Your task to perform on an android device: open chrome privacy settings Image 0: 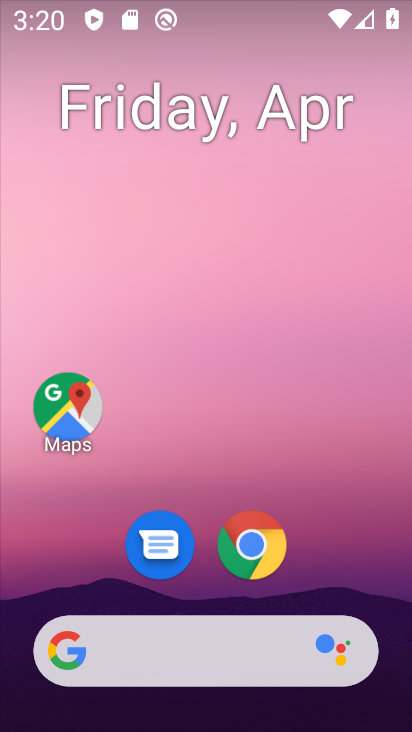
Step 0: click (251, 544)
Your task to perform on an android device: open chrome privacy settings Image 1: 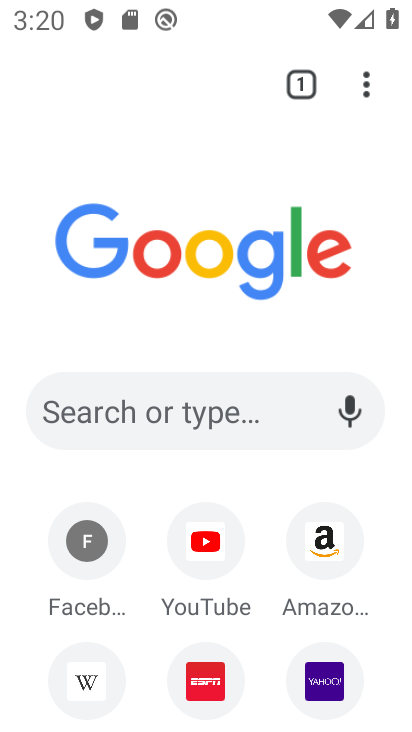
Step 1: click (365, 87)
Your task to perform on an android device: open chrome privacy settings Image 2: 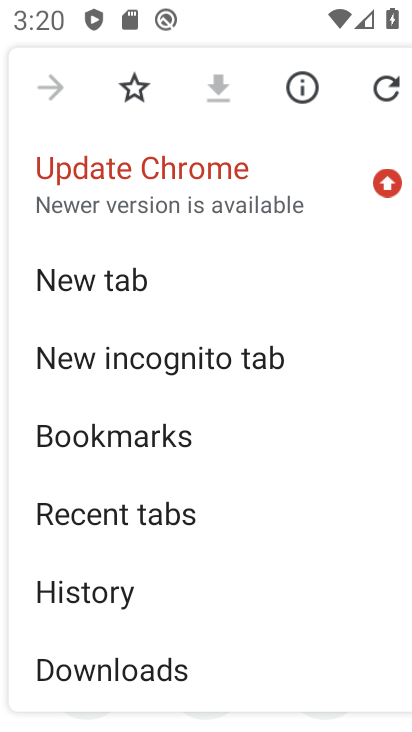
Step 2: drag from (251, 623) to (306, 212)
Your task to perform on an android device: open chrome privacy settings Image 3: 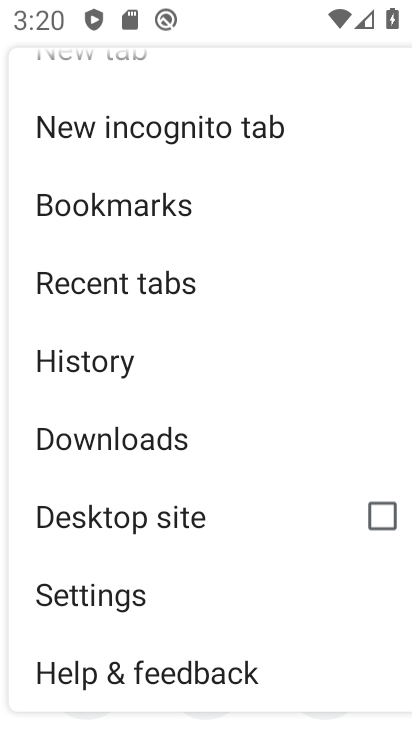
Step 3: click (62, 595)
Your task to perform on an android device: open chrome privacy settings Image 4: 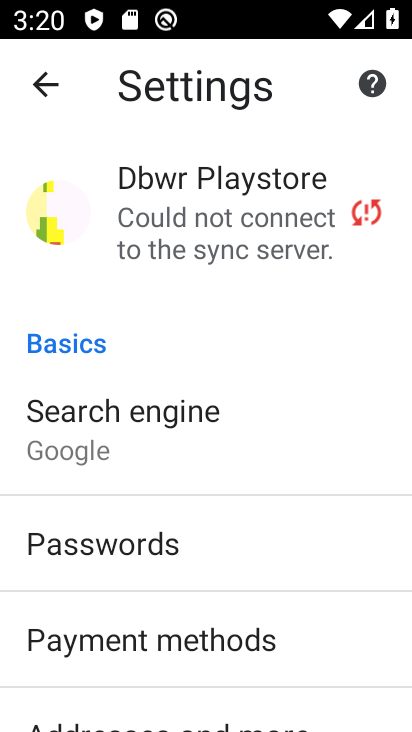
Step 4: drag from (318, 649) to (329, 287)
Your task to perform on an android device: open chrome privacy settings Image 5: 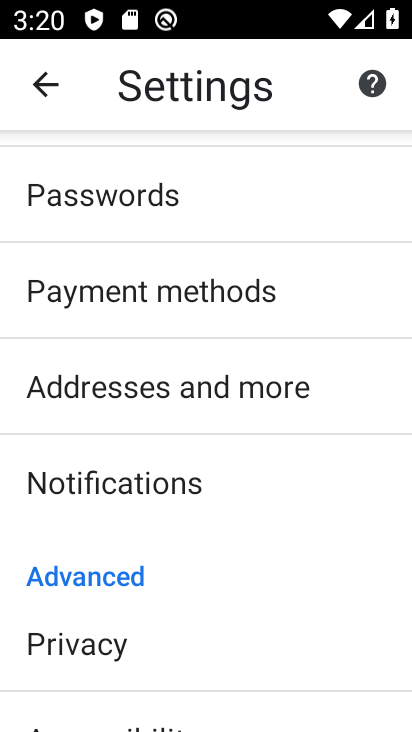
Step 5: click (73, 643)
Your task to perform on an android device: open chrome privacy settings Image 6: 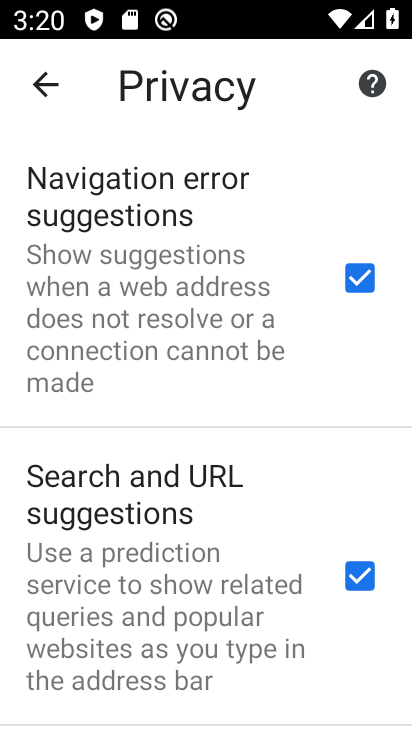
Step 6: task complete